Your task to perform on an android device: Search for pizza restaurants on Maps Image 0: 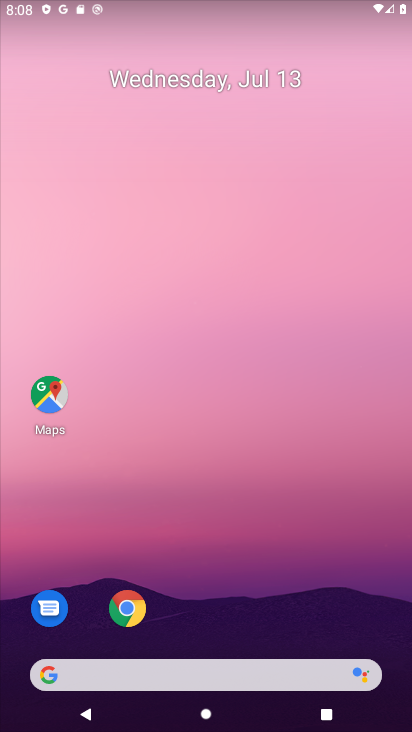
Step 0: drag from (239, 696) to (141, 278)
Your task to perform on an android device: Search for pizza restaurants on Maps Image 1: 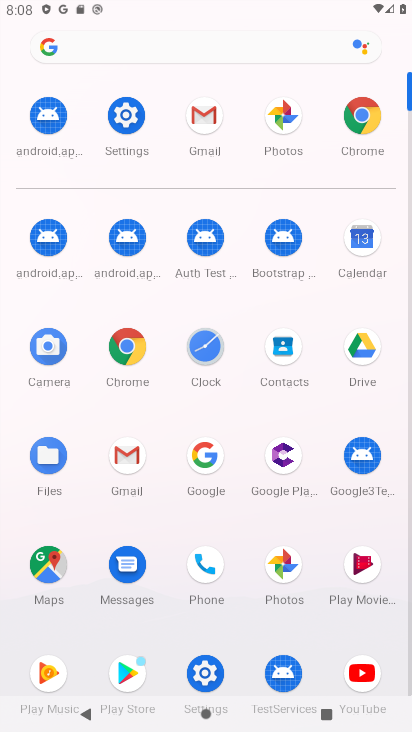
Step 1: click (56, 555)
Your task to perform on an android device: Search for pizza restaurants on Maps Image 2: 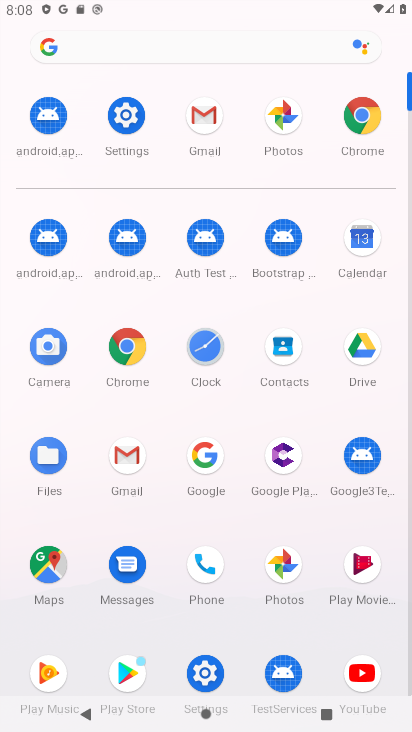
Step 2: click (48, 565)
Your task to perform on an android device: Search for pizza restaurants on Maps Image 3: 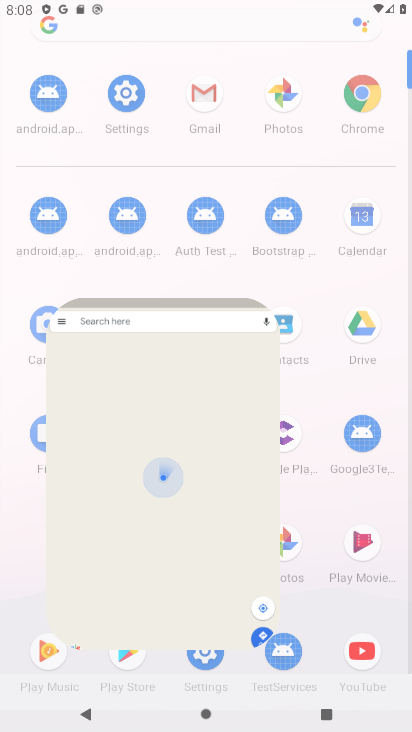
Step 3: click (48, 564)
Your task to perform on an android device: Search for pizza restaurants on Maps Image 4: 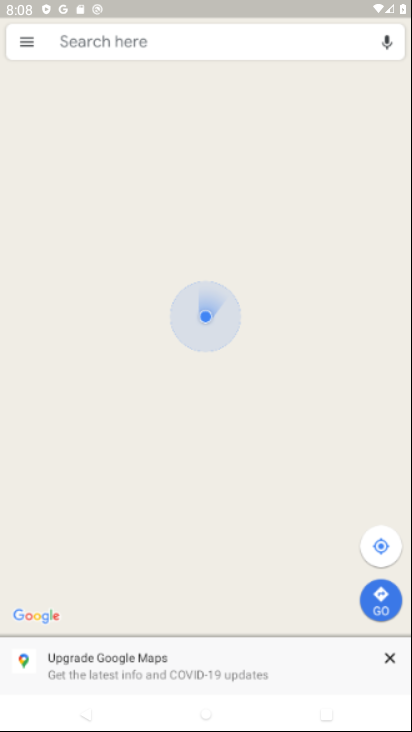
Step 4: click (48, 564)
Your task to perform on an android device: Search for pizza restaurants on Maps Image 5: 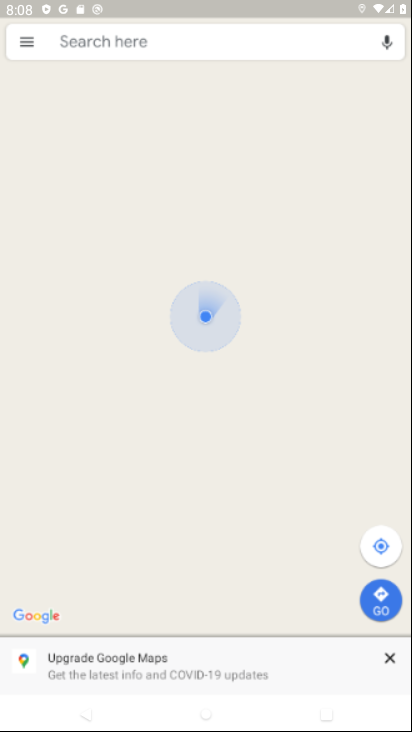
Step 5: click (49, 564)
Your task to perform on an android device: Search for pizza restaurants on Maps Image 6: 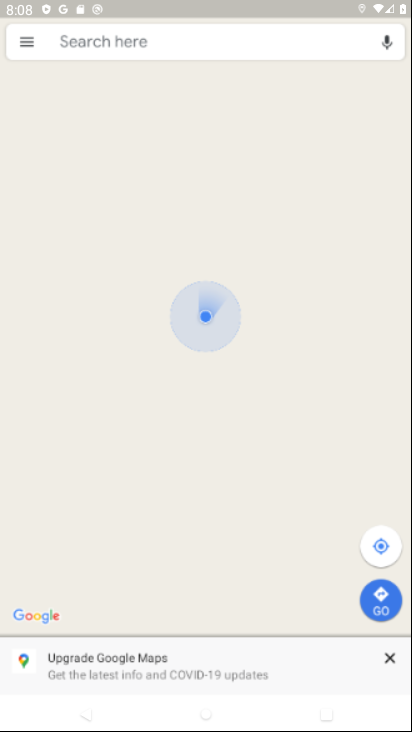
Step 6: click (103, 44)
Your task to perform on an android device: Search for pizza restaurants on Maps Image 7: 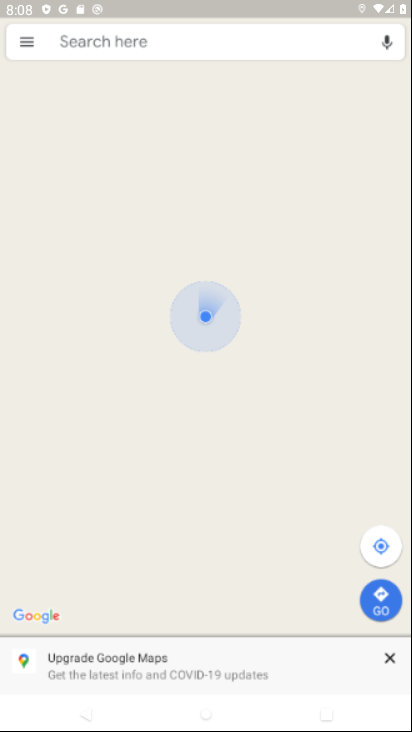
Step 7: click (103, 44)
Your task to perform on an android device: Search for pizza restaurants on Maps Image 8: 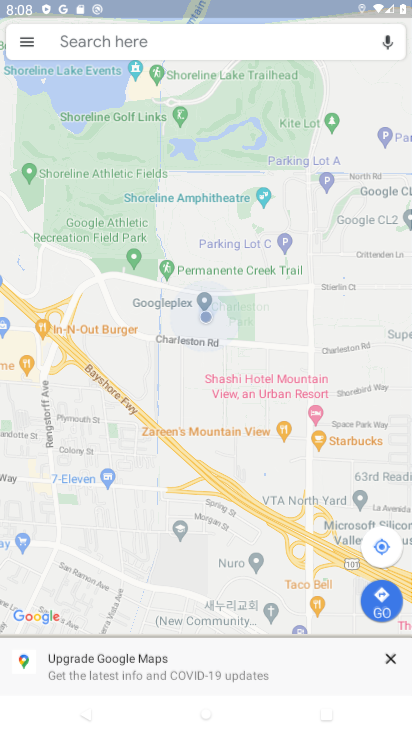
Step 8: click (103, 44)
Your task to perform on an android device: Search for pizza restaurants on Maps Image 9: 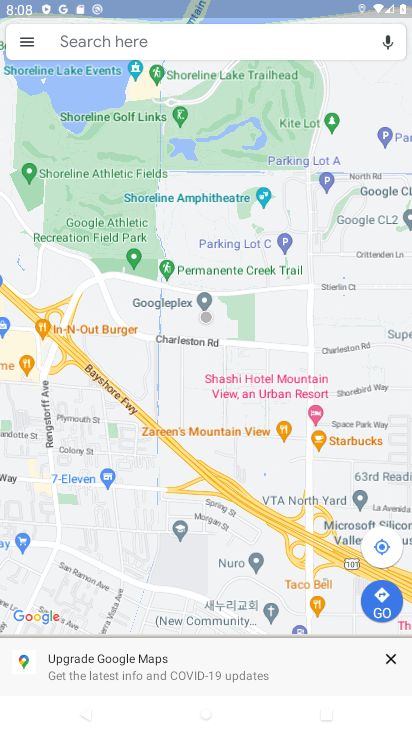
Step 9: click (103, 44)
Your task to perform on an android device: Search for pizza restaurants on Maps Image 10: 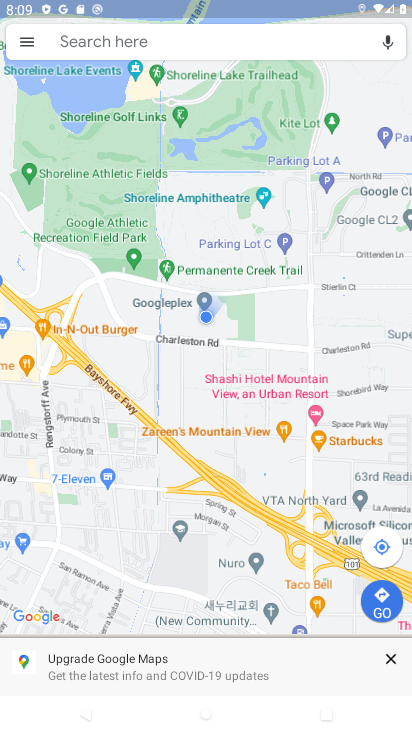
Step 10: click (98, 39)
Your task to perform on an android device: Search for pizza restaurants on Maps Image 11: 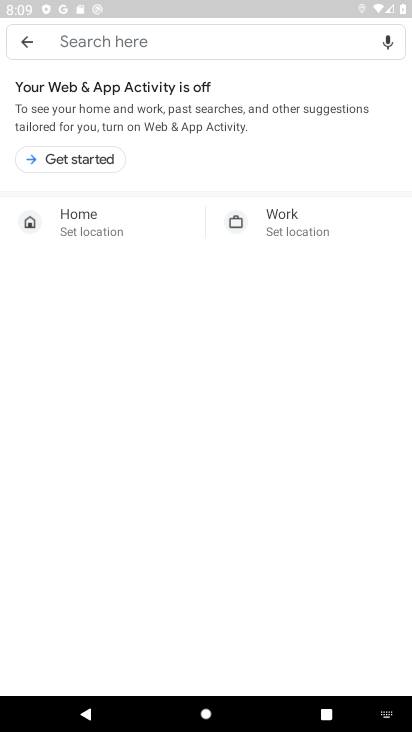
Step 11: type "pizza restaurants"
Your task to perform on an android device: Search for pizza restaurants on Maps Image 12: 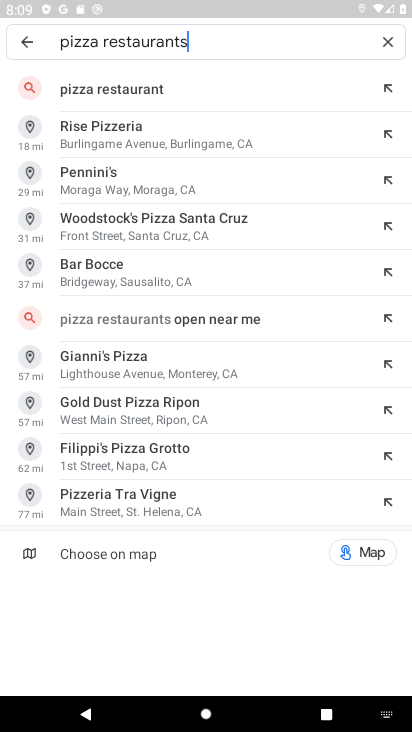
Step 12: click (106, 95)
Your task to perform on an android device: Search for pizza restaurants on Maps Image 13: 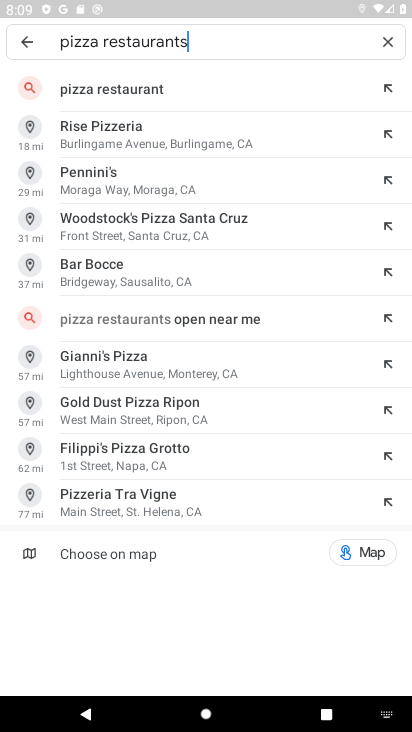
Step 13: click (108, 98)
Your task to perform on an android device: Search for pizza restaurants on Maps Image 14: 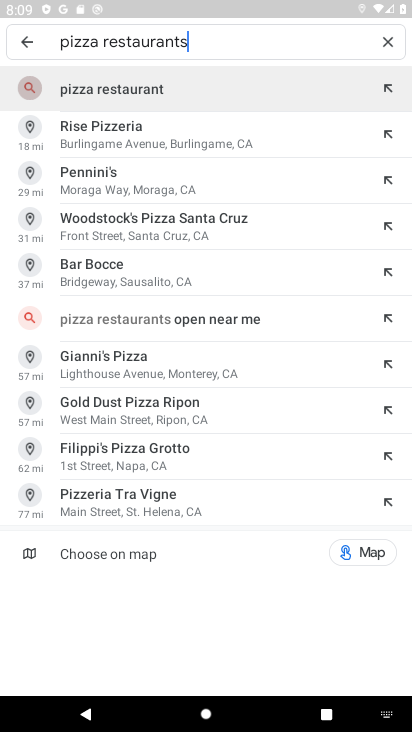
Step 14: click (112, 105)
Your task to perform on an android device: Search for pizza restaurants on Maps Image 15: 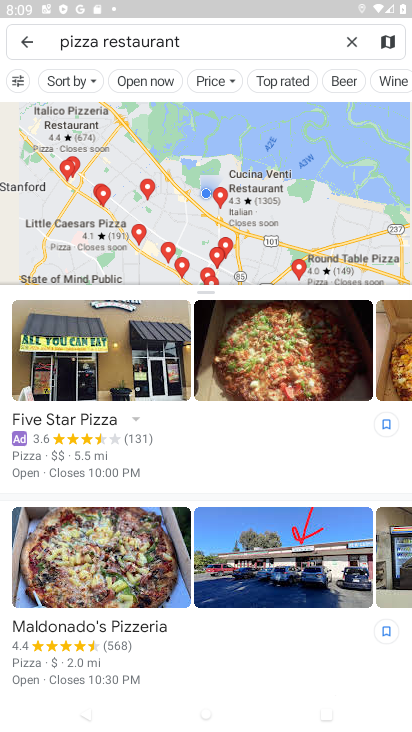
Step 15: task complete